Your task to perform on an android device: find snoozed emails in the gmail app Image 0: 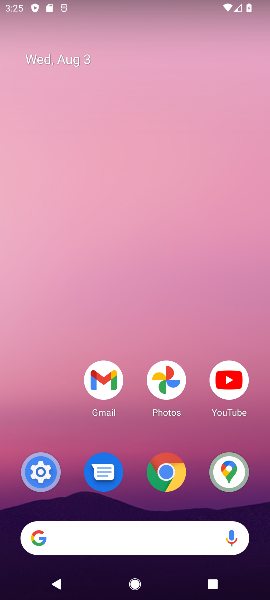
Step 0: drag from (138, 498) to (0, 152)
Your task to perform on an android device: find snoozed emails in the gmail app Image 1: 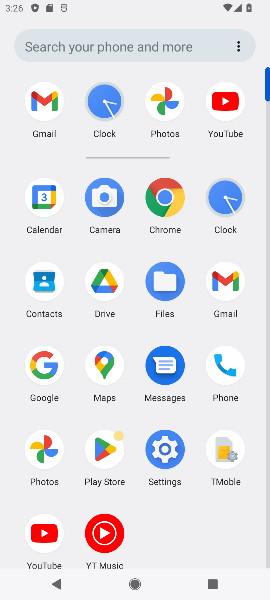
Step 1: click (217, 281)
Your task to perform on an android device: find snoozed emails in the gmail app Image 2: 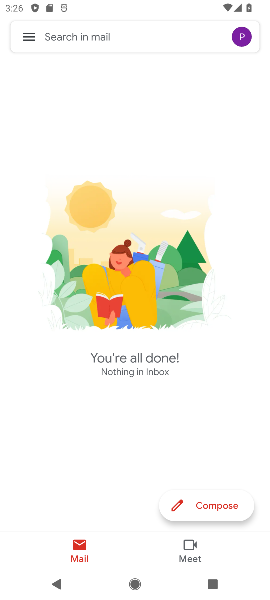
Step 2: click (26, 42)
Your task to perform on an android device: find snoozed emails in the gmail app Image 3: 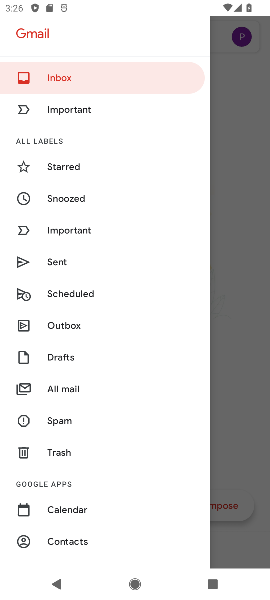
Step 3: click (59, 207)
Your task to perform on an android device: find snoozed emails in the gmail app Image 4: 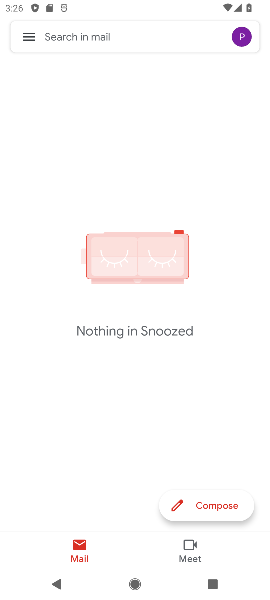
Step 4: task complete